Your task to perform on an android device: Show me recent news Image 0: 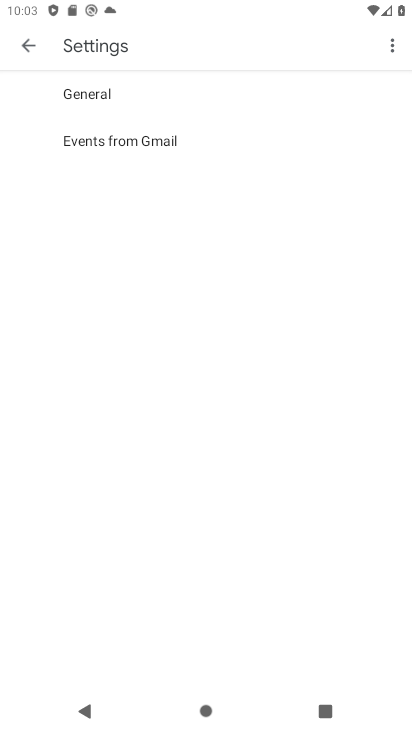
Step 0: press home button
Your task to perform on an android device: Show me recent news Image 1: 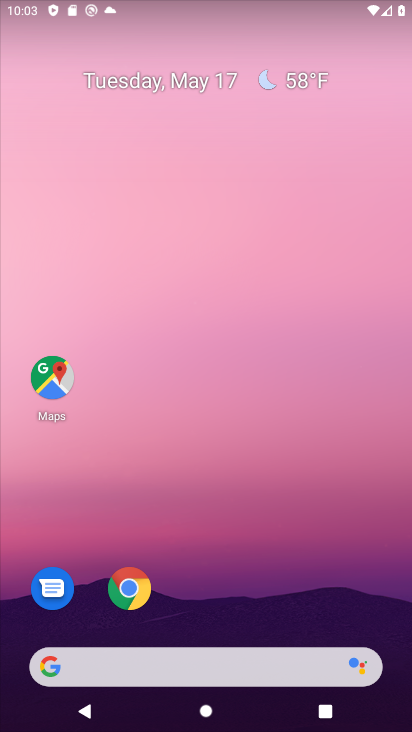
Step 1: drag from (230, 619) to (209, 213)
Your task to perform on an android device: Show me recent news Image 2: 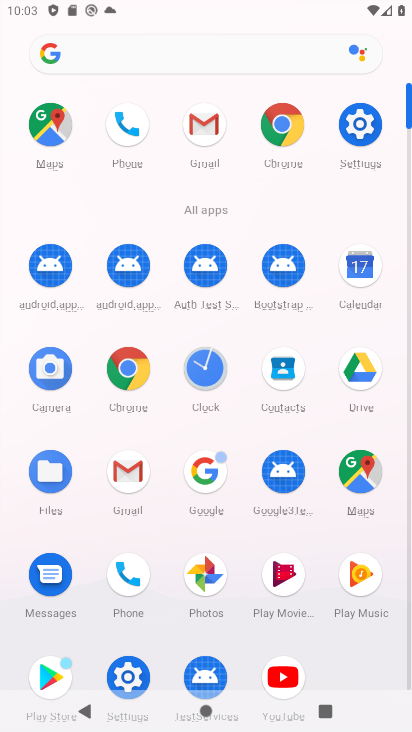
Step 2: click (283, 132)
Your task to perform on an android device: Show me recent news Image 3: 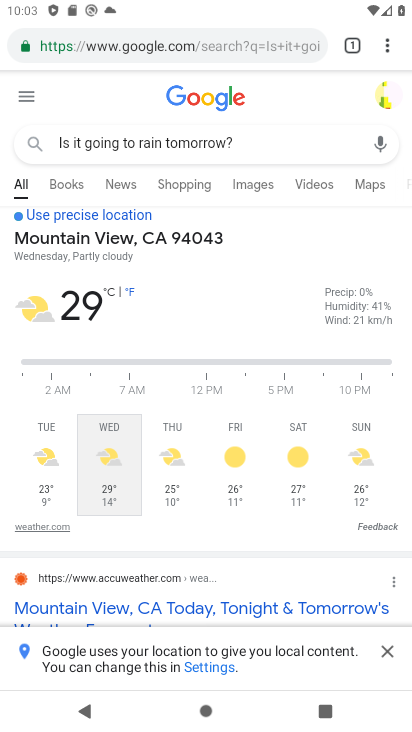
Step 3: click (318, 145)
Your task to perform on an android device: Show me recent news Image 4: 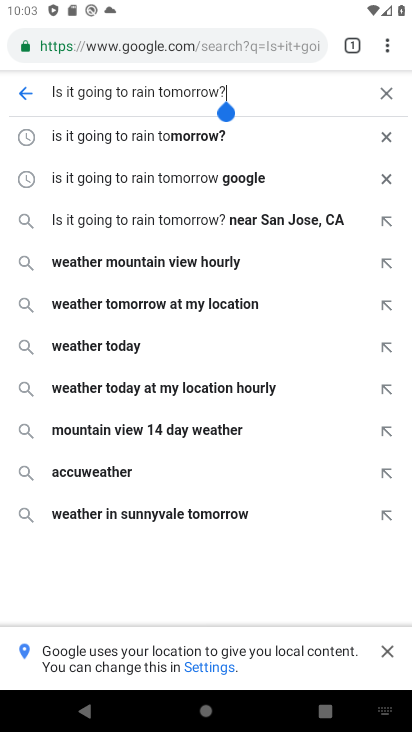
Step 4: click (394, 92)
Your task to perform on an android device: Show me recent news Image 5: 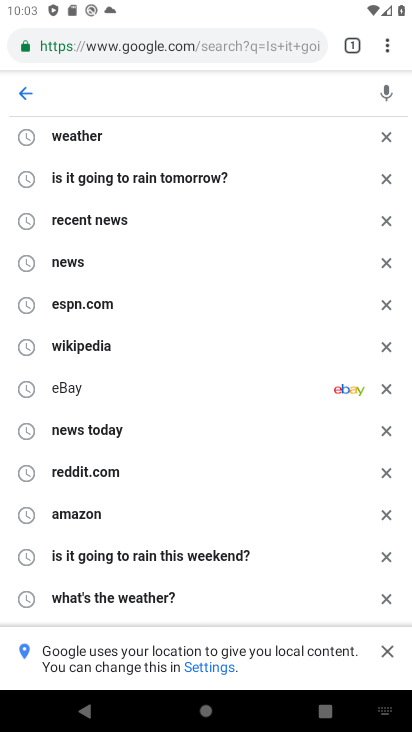
Step 5: click (90, 220)
Your task to perform on an android device: Show me recent news Image 6: 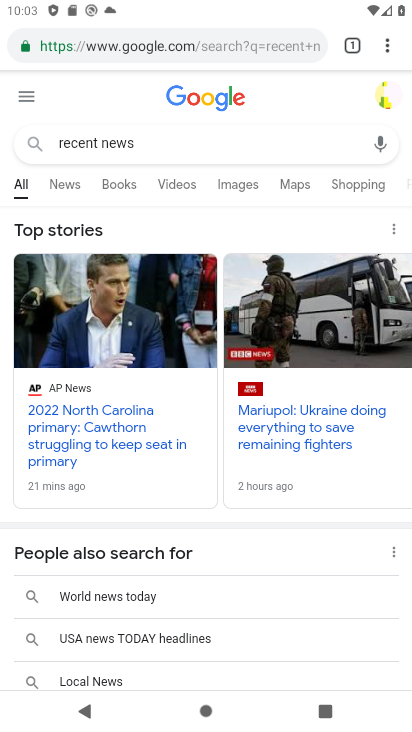
Step 6: task complete